Your task to perform on an android device: change the upload size in google photos Image 0: 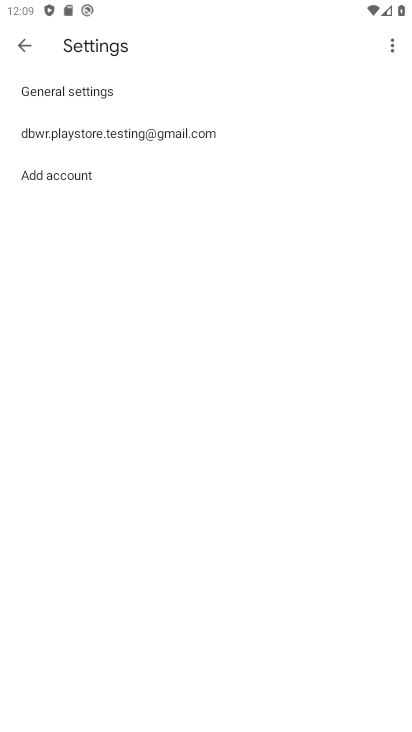
Step 0: press home button
Your task to perform on an android device: change the upload size in google photos Image 1: 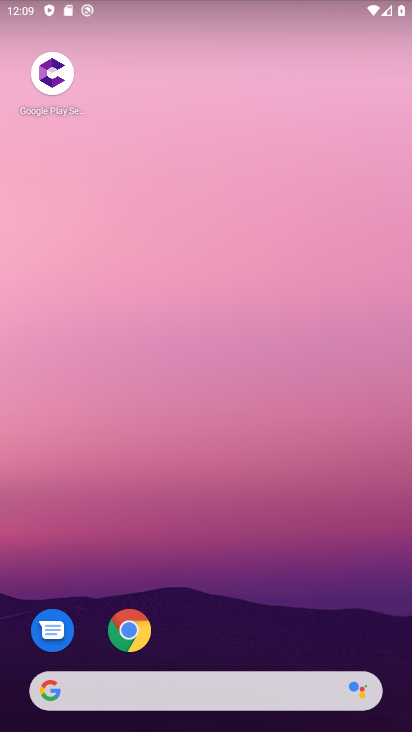
Step 1: drag from (203, 716) to (203, 260)
Your task to perform on an android device: change the upload size in google photos Image 2: 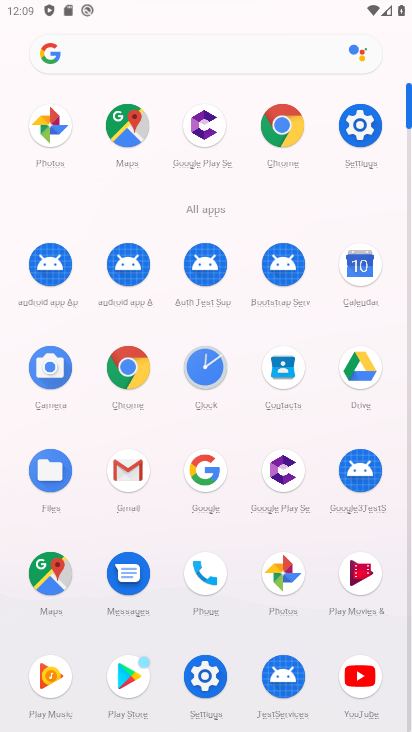
Step 2: click (55, 126)
Your task to perform on an android device: change the upload size in google photos Image 3: 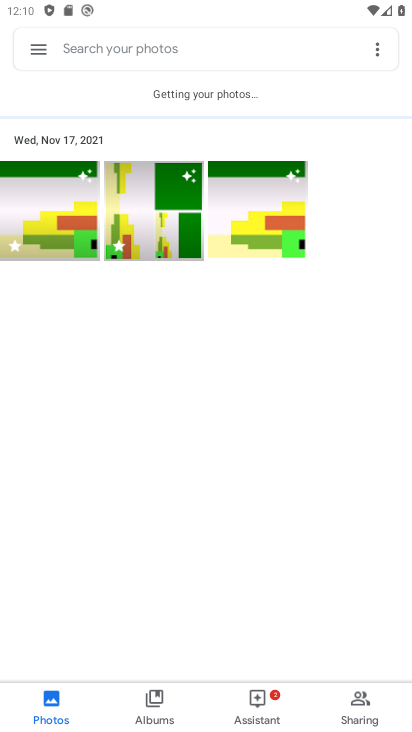
Step 3: click (35, 48)
Your task to perform on an android device: change the upload size in google photos Image 4: 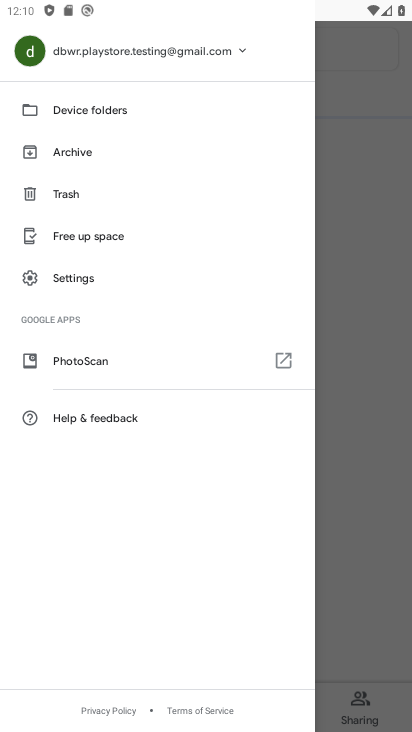
Step 4: click (86, 275)
Your task to perform on an android device: change the upload size in google photos Image 5: 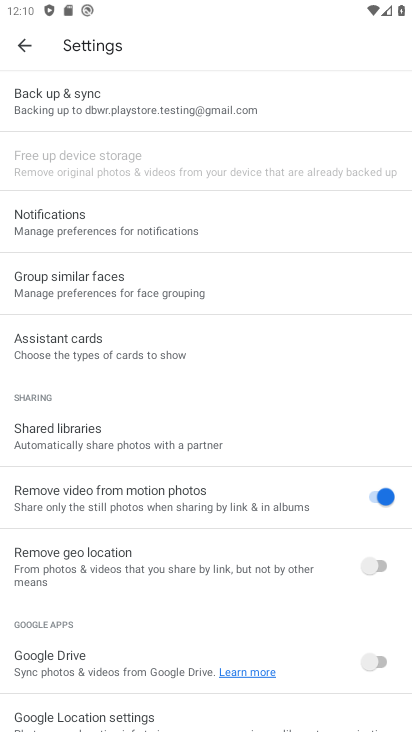
Step 5: click (69, 102)
Your task to perform on an android device: change the upload size in google photos Image 6: 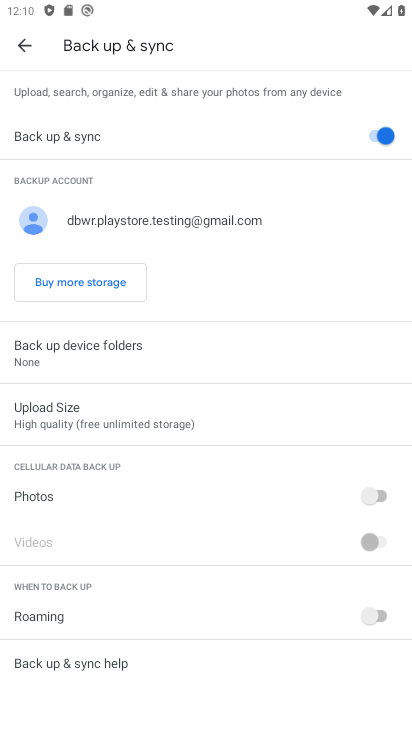
Step 6: click (64, 413)
Your task to perform on an android device: change the upload size in google photos Image 7: 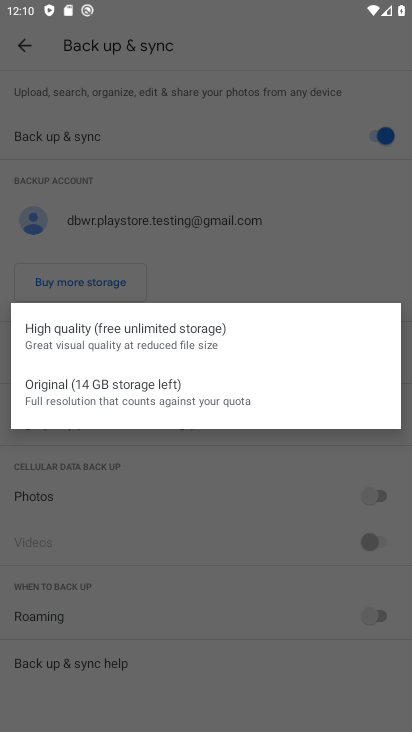
Step 7: click (72, 389)
Your task to perform on an android device: change the upload size in google photos Image 8: 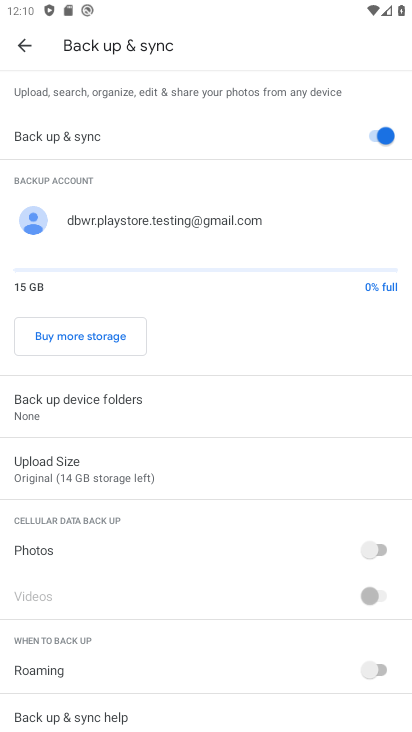
Step 8: task complete